Your task to perform on an android device: Open Amazon Image 0: 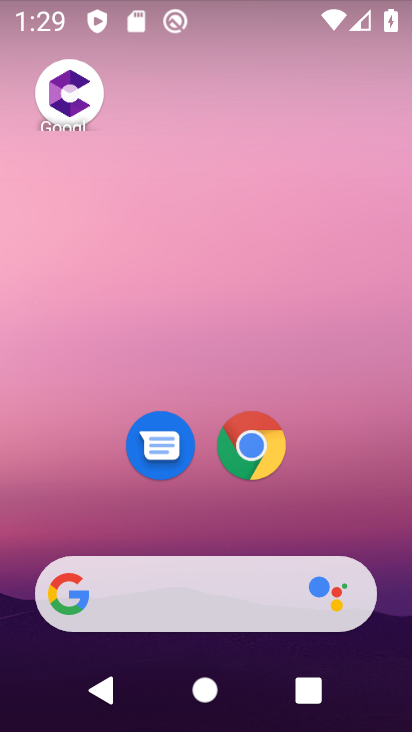
Step 0: press home button
Your task to perform on an android device: Open Amazon Image 1: 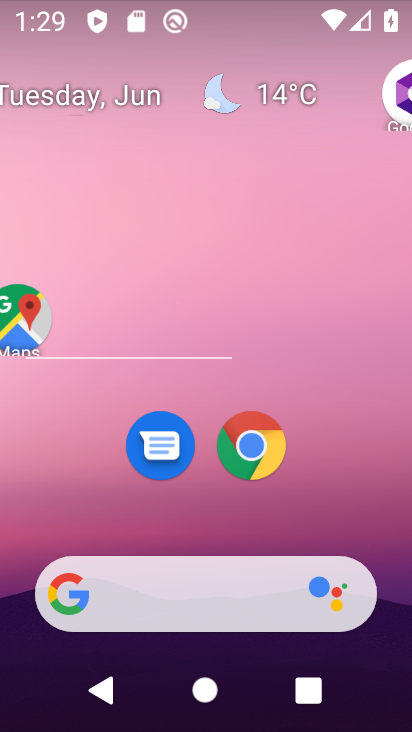
Step 1: drag from (372, 443) to (347, 130)
Your task to perform on an android device: Open Amazon Image 2: 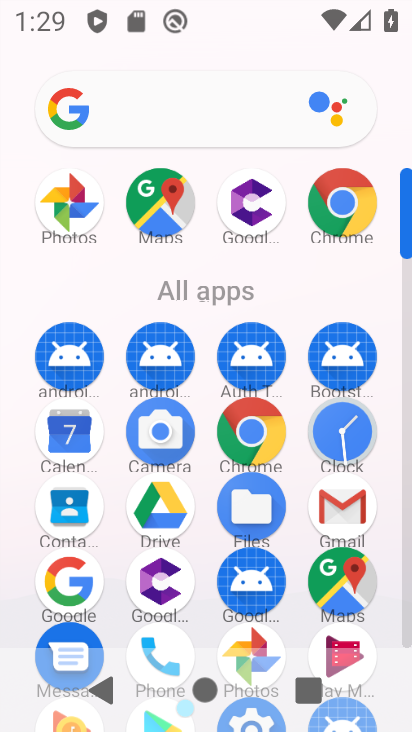
Step 2: click (247, 443)
Your task to perform on an android device: Open Amazon Image 3: 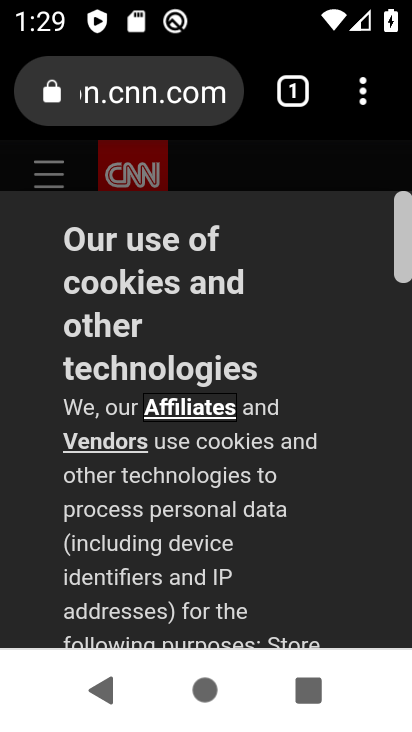
Step 3: click (296, 90)
Your task to perform on an android device: Open Amazon Image 4: 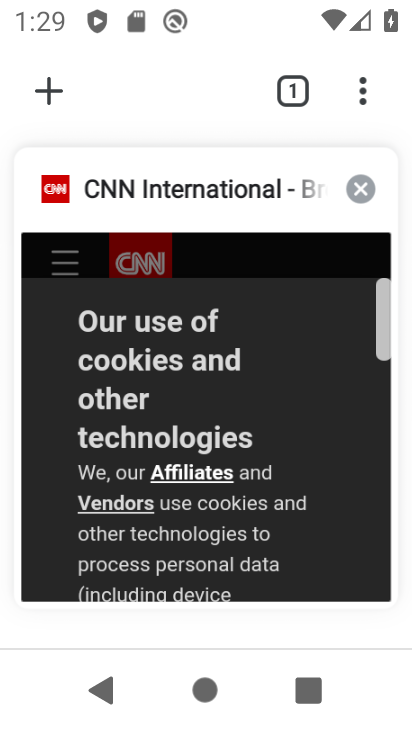
Step 4: click (44, 101)
Your task to perform on an android device: Open Amazon Image 5: 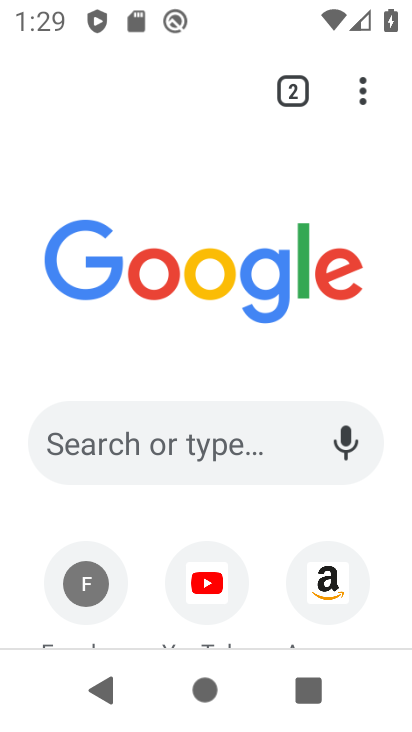
Step 5: click (329, 588)
Your task to perform on an android device: Open Amazon Image 6: 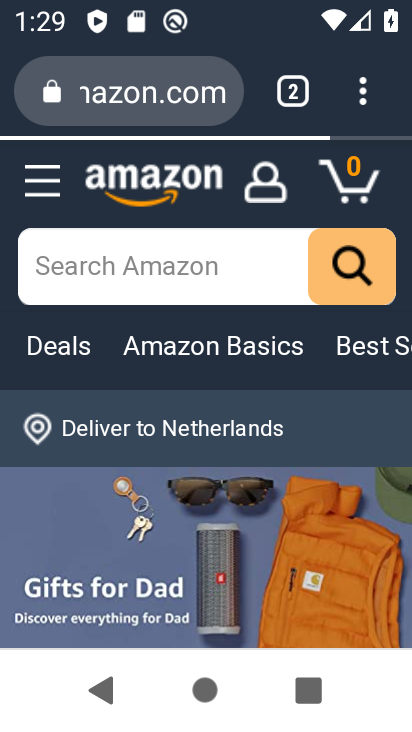
Step 6: task complete